Your task to perform on an android device: Check the news Image 0: 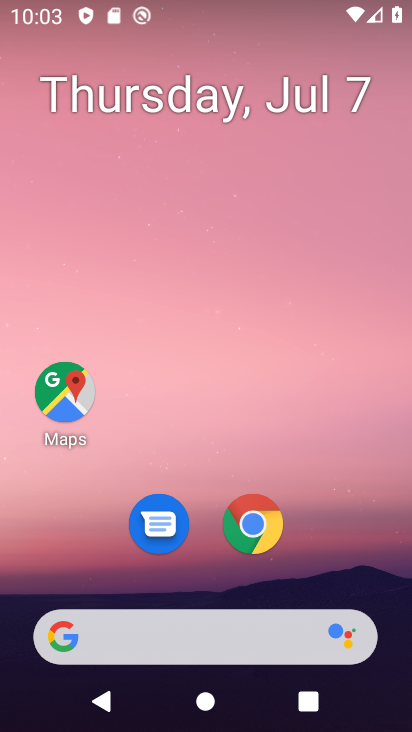
Step 0: click (185, 648)
Your task to perform on an android device: Check the news Image 1: 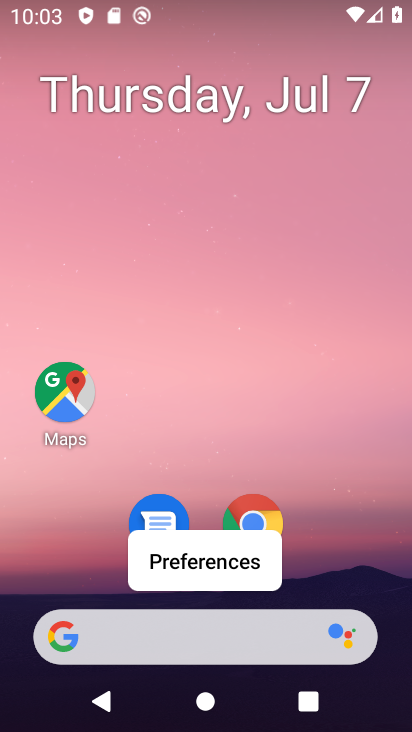
Step 1: click (185, 648)
Your task to perform on an android device: Check the news Image 2: 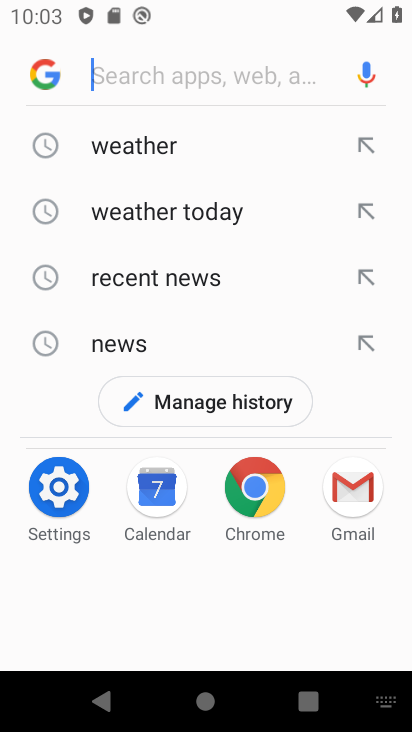
Step 2: click (113, 334)
Your task to perform on an android device: Check the news Image 3: 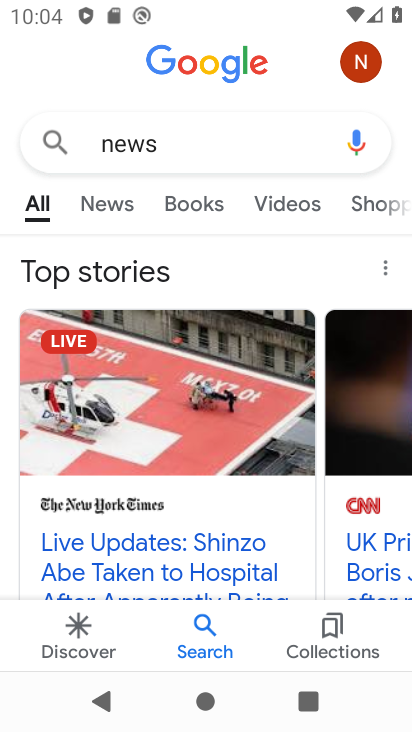
Step 3: task complete